Your task to perform on an android device: Go to Google Image 0: 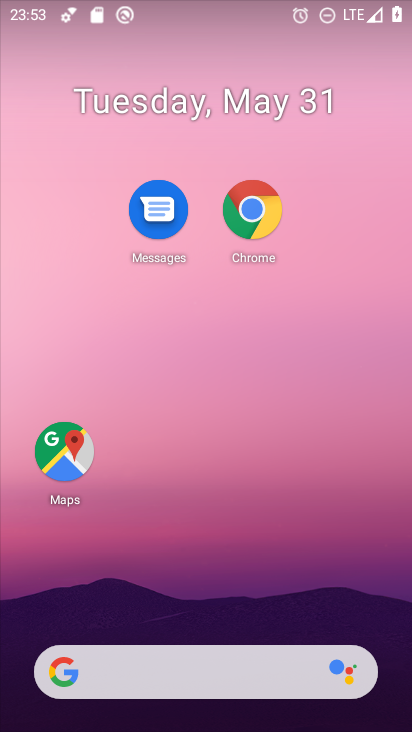
Step 0: press home button
Your task to perform on an android device: Go to Google Image 1: 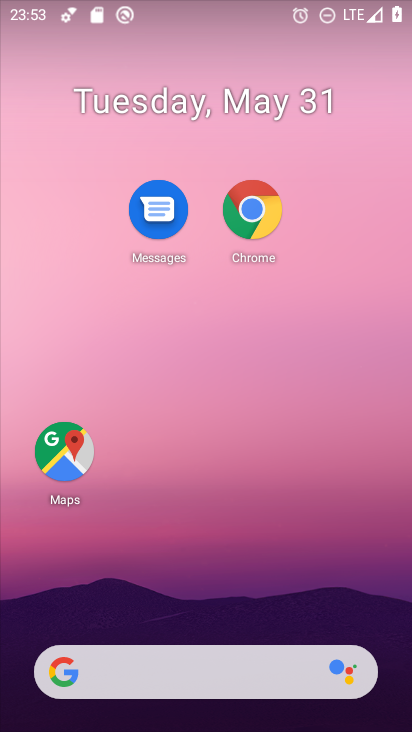
Step 1: drag from (206, 623) to (195, 71)
Your task to perform on an android device: Go to Google Image 2: 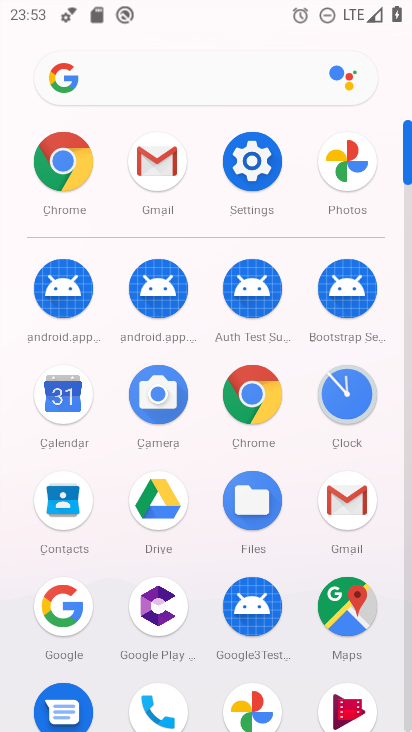
Step 2: click (62, 603)
Your task to perform on an android device: Go to Google Image 3: 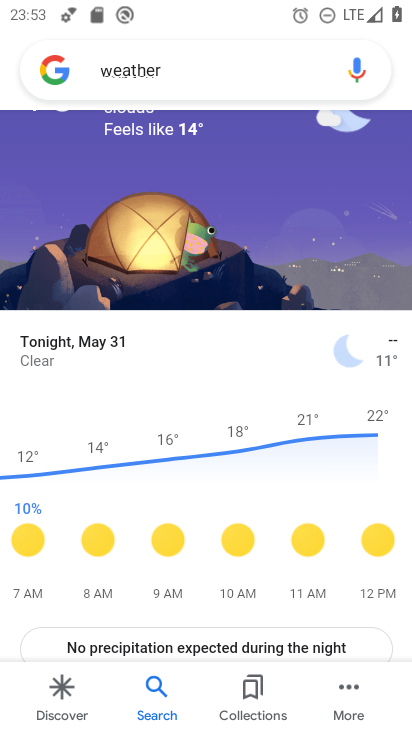
Step 3: task complete